Your task to perform on an android device: turn on javascript in the chrome app Image 0: 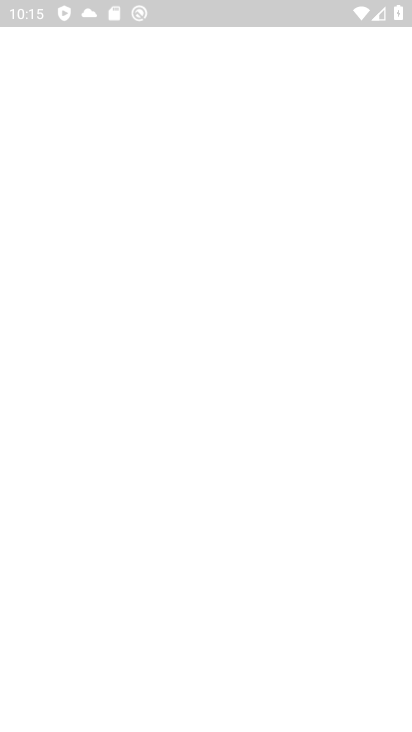
Step 0: click (55, 384)
Your task to perform on an android device: turn on javascript in the chrome app Image 1: 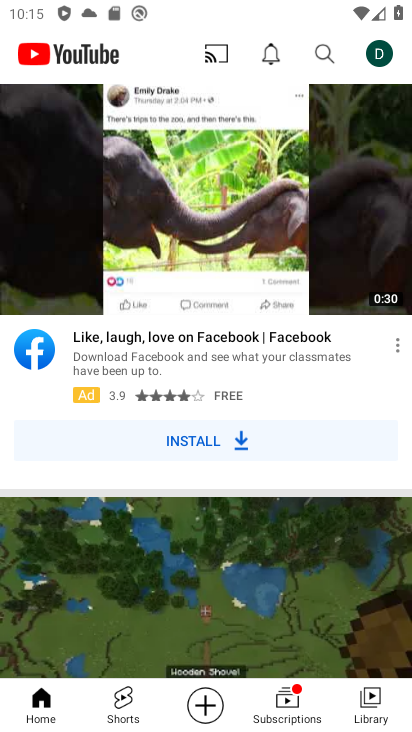
Step 1: press home button
Your task to perform on an android device: turn on javascript in the chrome app Image 2: 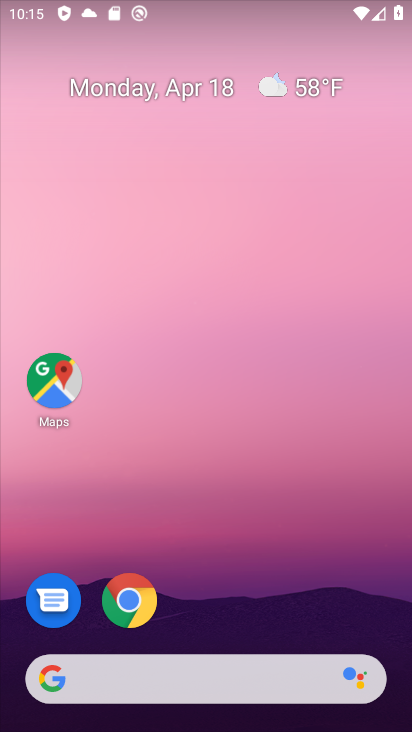
Step 2: click (131, 597)
Your task to perform on an android device: turn on javascript in the chrome app Image 3: 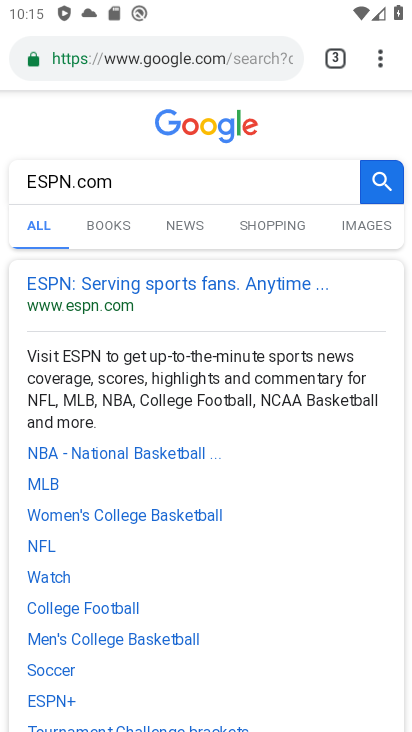
Step 3: click (376, 55)
Your task to perform on an android device: turn on javascript in the chrome app Image 4: 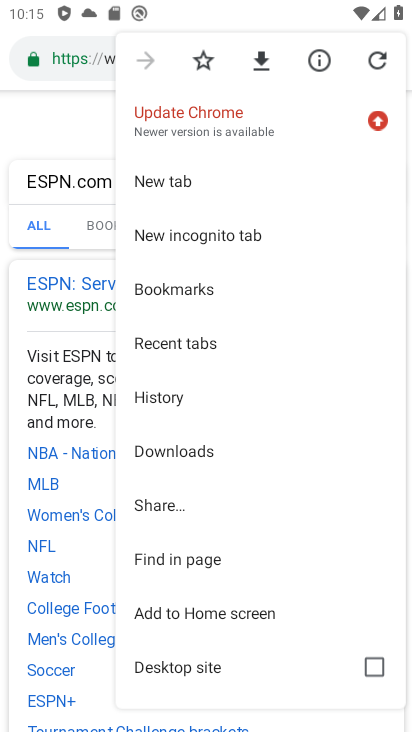
Step 4: drag from (251, 489) to (273, 168)
Your task to perform on an android device: turn on javascript in the chrome app Image 5: 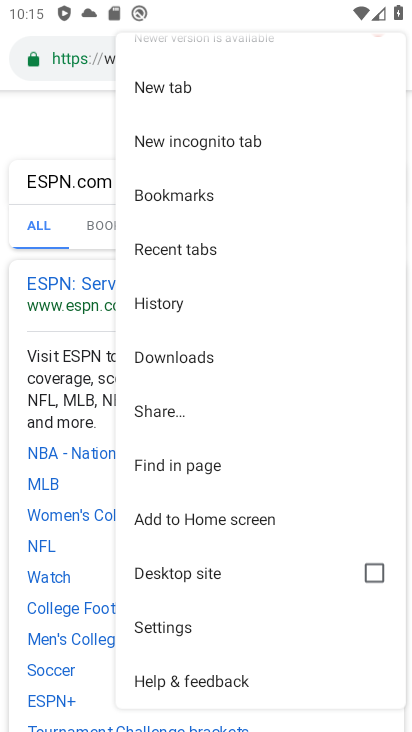
Step 5: click (183, 632)
Your task to perform on an android device: turn on javascript in the chrome app Image 6: 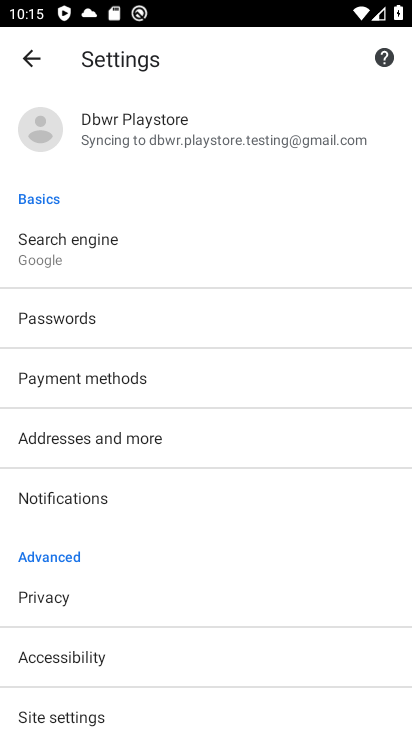
Step 6: click (81, 716)
Your task to perform on an android device: turn on javascript in the chrome app Image 7: 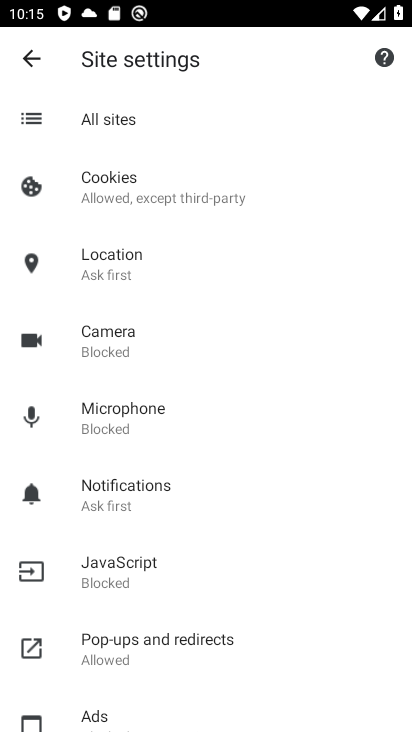
Step 7: click (134, 559)
Your task to perform on an android device: turn on javascript in the chrome app Image 8: 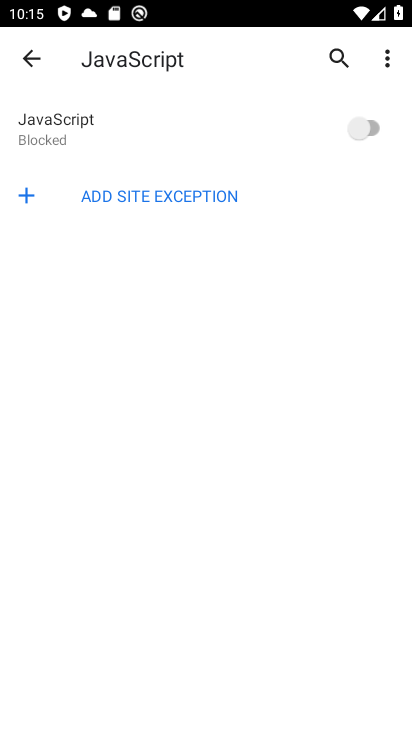
Step 8: click (352, 130)
Your task to perform on an android device: turn on javascript in the chrome app Image 9: 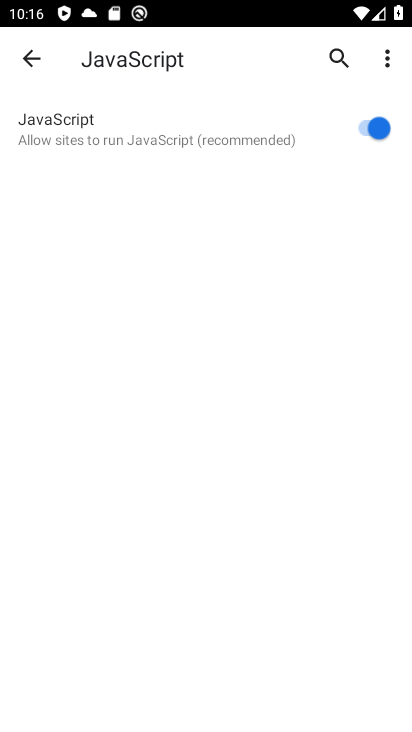
Step 9: task complete